Your task to perform on an android device: toggle notifications settings in the gmail app Image 0: 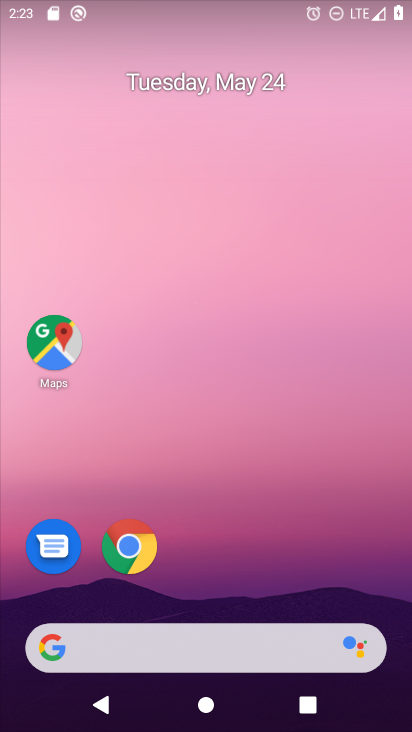
Step 0: drag from (182, 559) to (228, 26)
Your task to perform on an android device: toggle notifications settings in the gmail app Image 1: 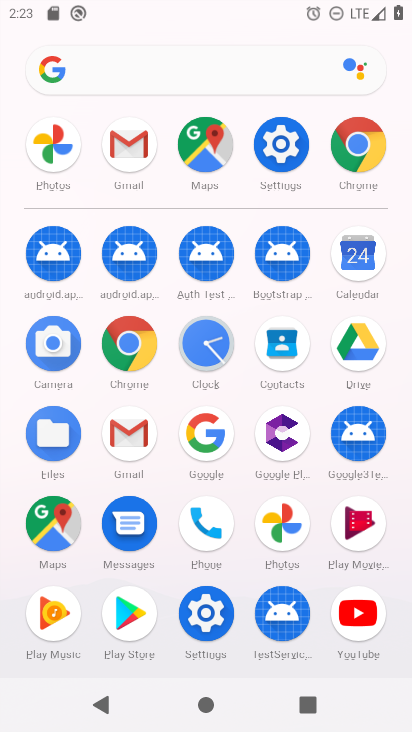
Step 1: click (141, 440)
Your task to perform on an android device: toggle notifications settings in the gmail app Image 2: 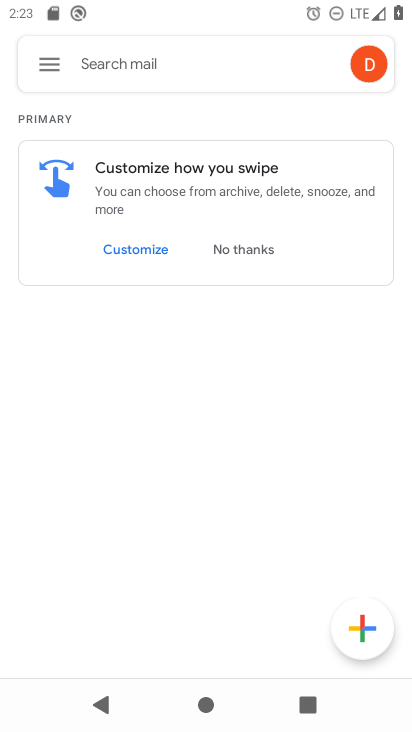
Step 2: click (47, 62)
Your task to perform on an android device: toggle notifications settings in the gmail app Image 3: 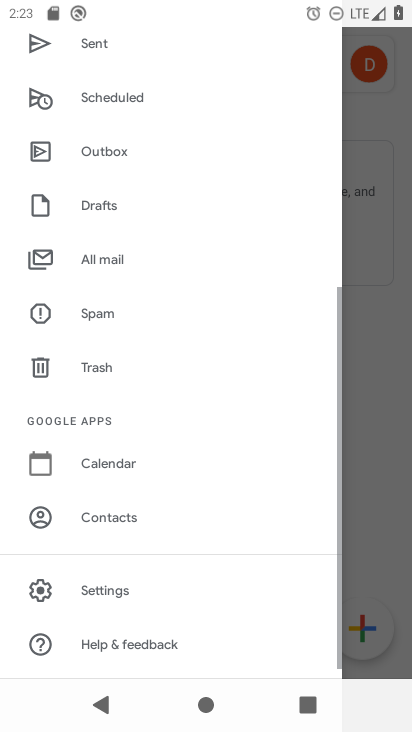
Step 3: drag from (164, 622) to (170, 301)
Your task to perform on an android device: toggle notifications settings in the gmail app Image 4: 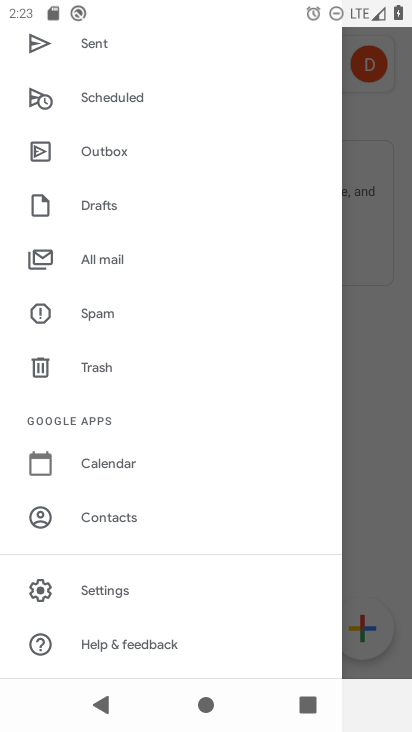
Step 4: click (122, 592)
Your task to perform on an android device: toggle notifications settings in the gmail app Image 5: 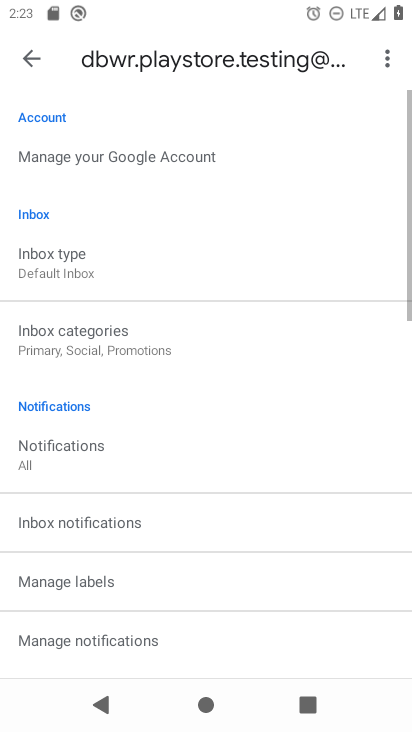
Step 5: drag from (122, 578) to (188, 182)
Your task to perform on an android device: toggle notifications settings in the gmail app Image 6: 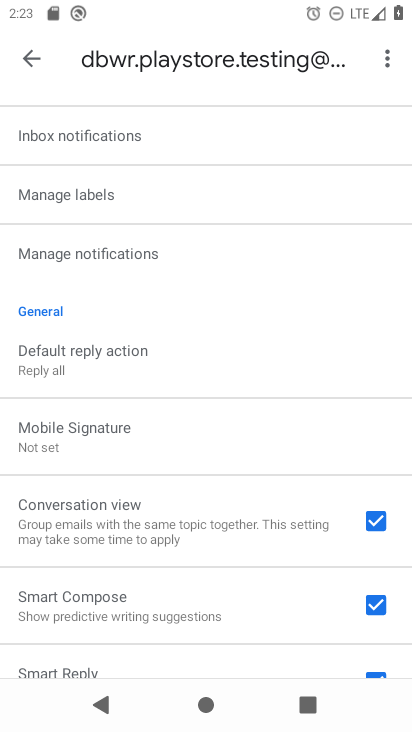
Step 6: click (145, 236)
Your task to perform on an android device: toggle notifications settings in the gmail app Image 7: 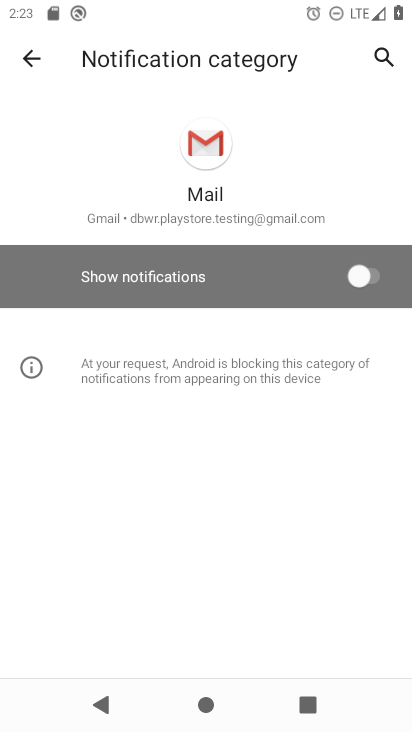
Step 7: click (374, 269)
Your task to perform on an android device: toggle notifications settings in the gmail app Image 8: 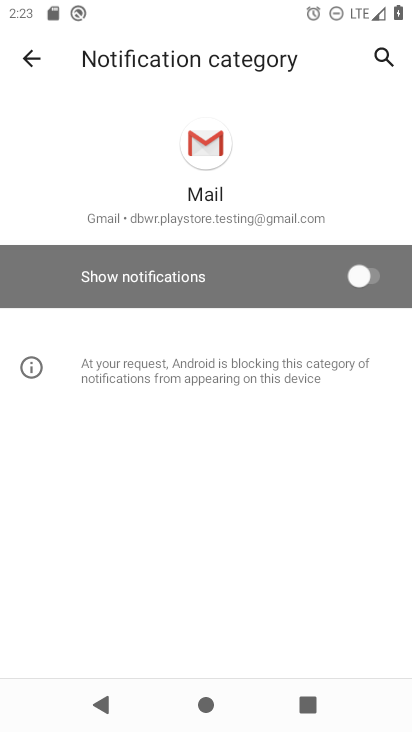
Step 8: click (378, 274)
Your task to perform on an android device: toggle notifications settings in the gmail app Image 9: 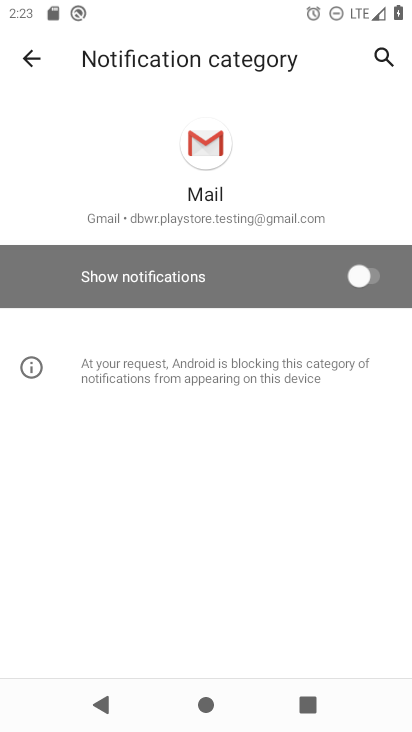
Step 9: click (360, 273)
Your task to perform on an android device: toggle notifications settings in the gmail app Image 10: 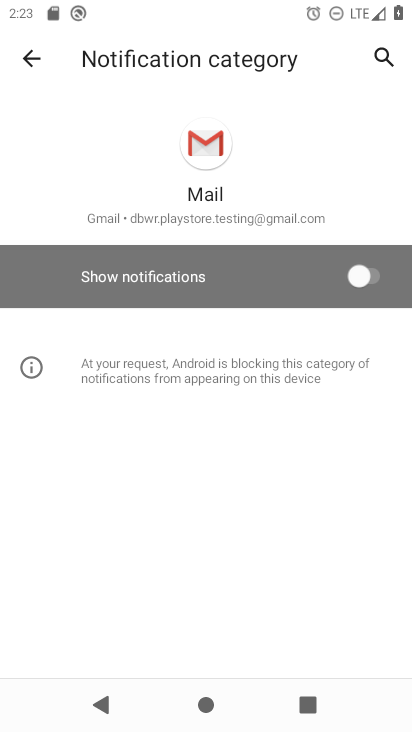
Step 10: task complete